Your task to perform on an android device: allow notifications from all sites in the chrome app Image 0: 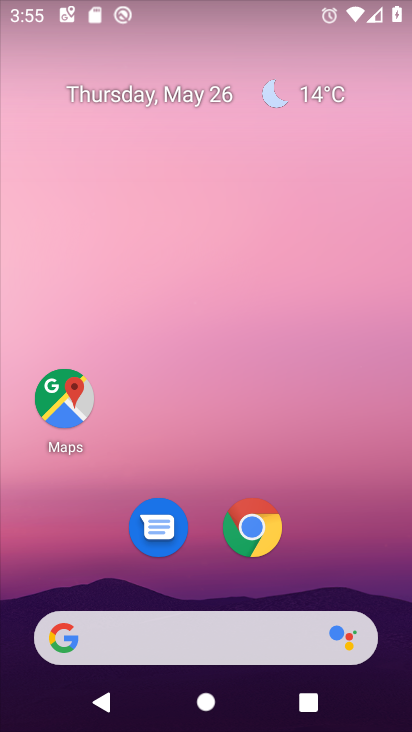
Step 0: click (270, 538)
Your task to perform on an android device: allow notifications from all sites in the chrome app Image 1: 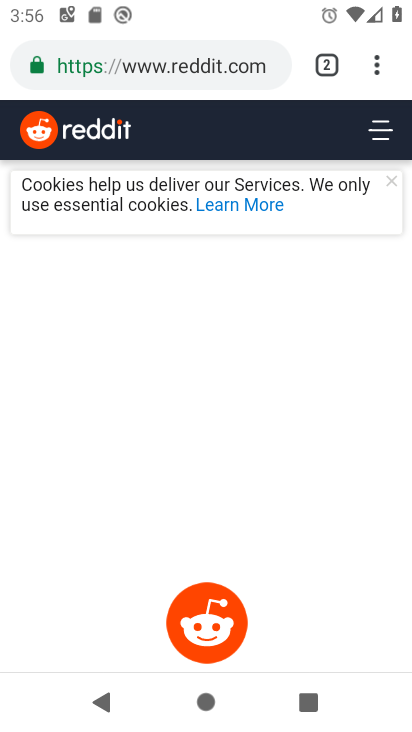
Step 1: click (378, 69)
Your task to perform on an android device: allow notifications from all sites in the chrome app Image 2: 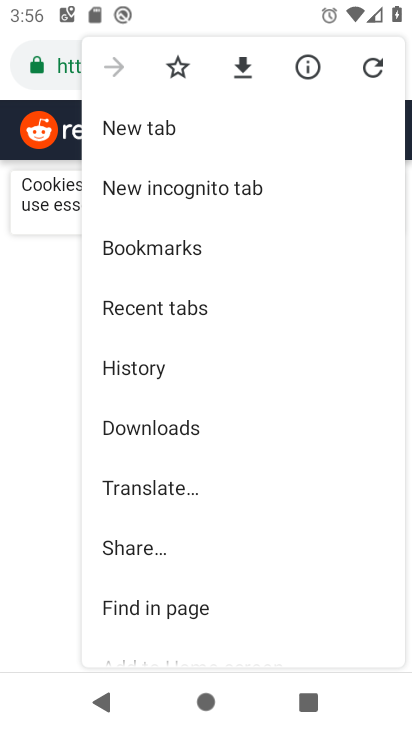
Step 2: drag from (195, 579) to (178, 189)
Your task to perform on an android device: allow notifications from all sites in the chrome app Image 3: 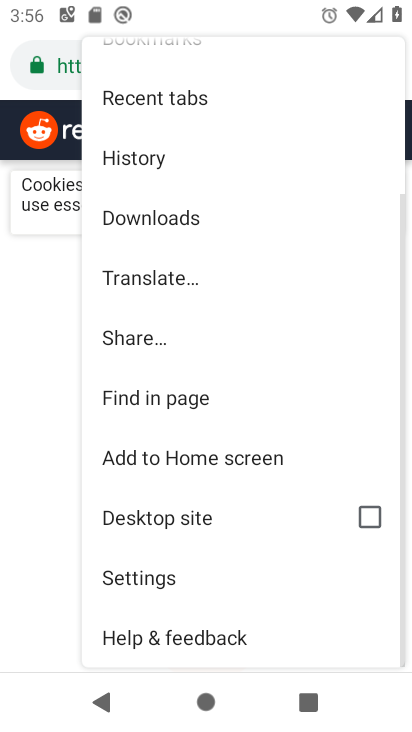
Step 3: click (164, 570)
Your task to perform on an android device: allow notifications from all sites in the chrome app Image 4: 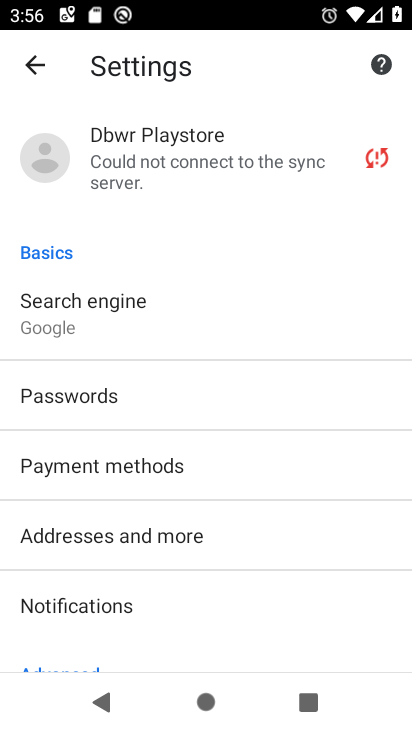
Step 4: drag from (169, 627) to (132, 301)
Your task to perform on an android device: allow notifications from all sites in the chrome app Image 5: 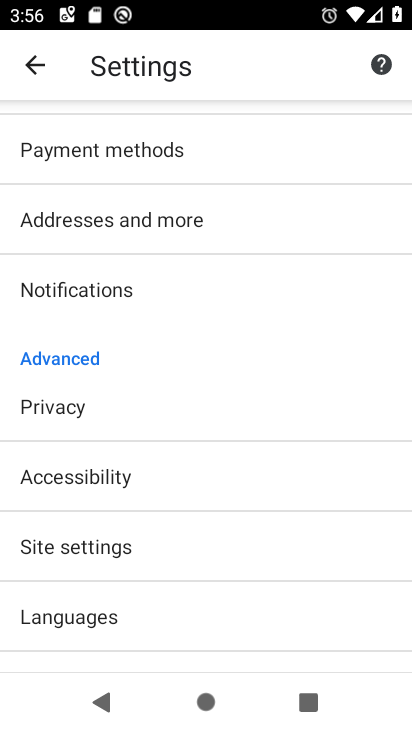
Step 5: click (121, 563)
Your task to perform on an android device: allow notifications from all sites in the chrome app Image 6: 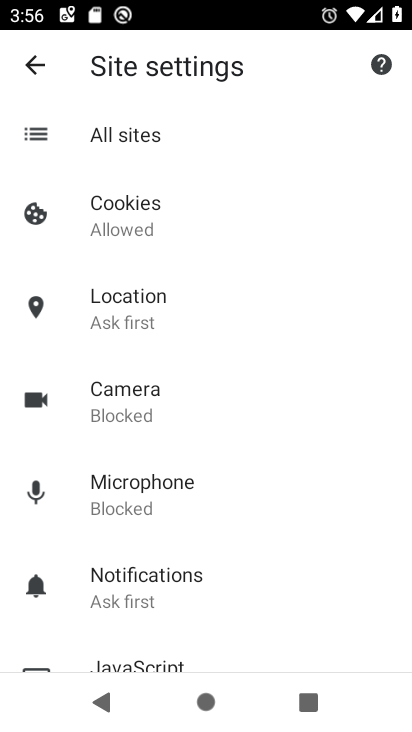
Step 6: click (200, 581)
Your task to perform on an android device: allow notifications from all sites in the chrome app Image 7: 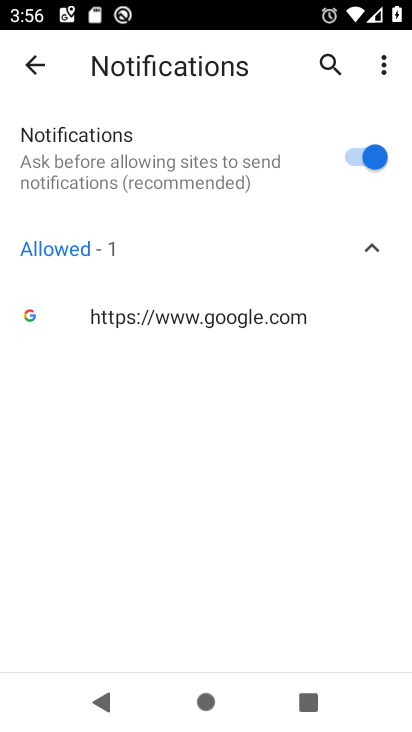
Step 7: task complete